Your task to perform on an android device: toggle improve location accuracy Image 0: 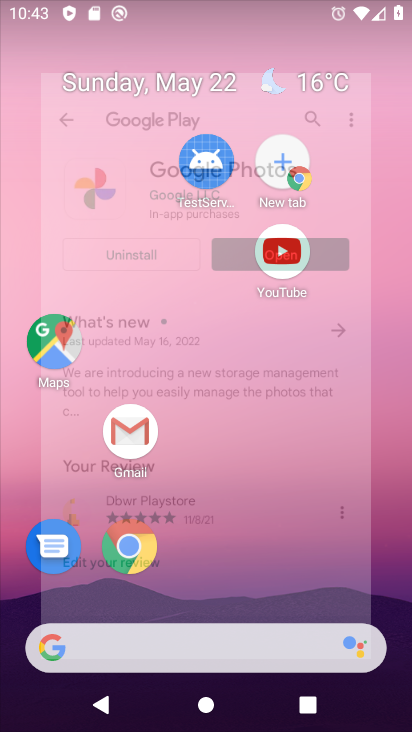
Step 0: drag from (273, 711) to (240, 148)
Your task to perform on an android device: toggle improve location accuracy Image 1: 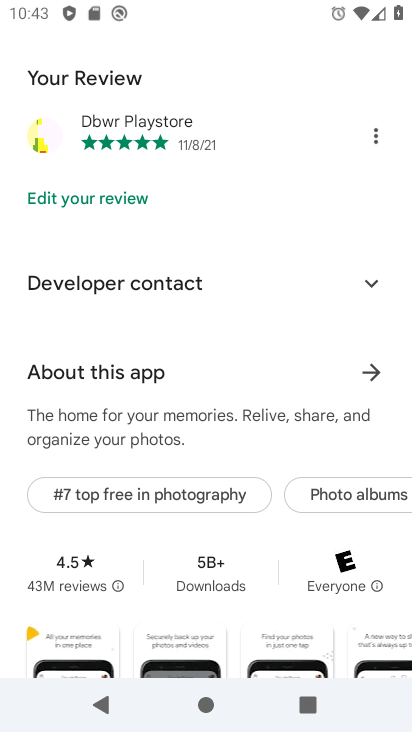
Step 1: press back button
Your task to perform on an android device: toggle improve location accuracy Image 2: 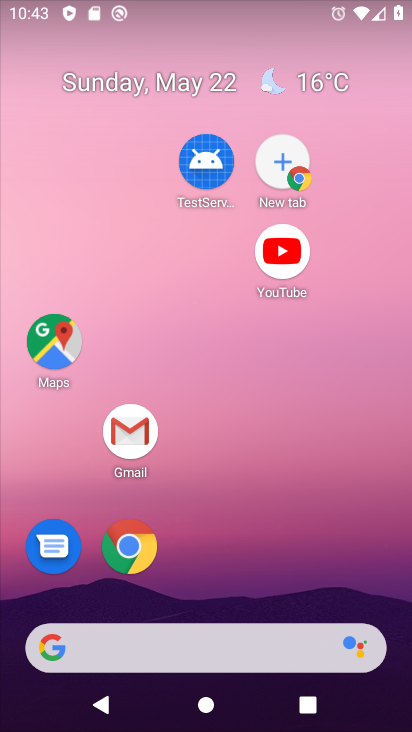
Step 2: drag from (300, 728) to (304, 239)
Your task to perform on an android device: toggle improve location accuracy Image 3: 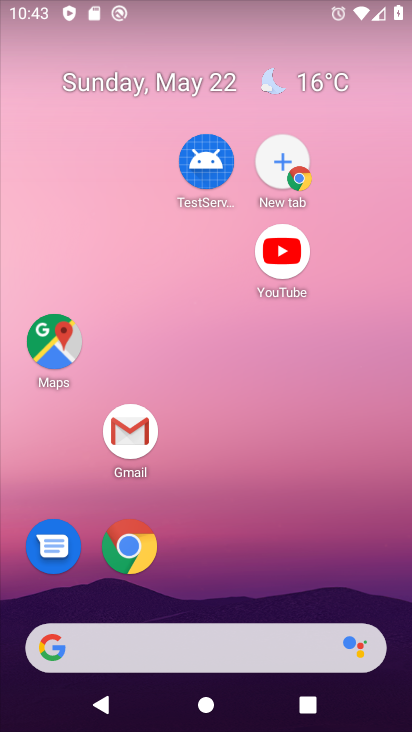
Step 3: drag from (253, 700) to (246, 159)
Your task to perform on an android device: toggle improve location accuracy Image 4: 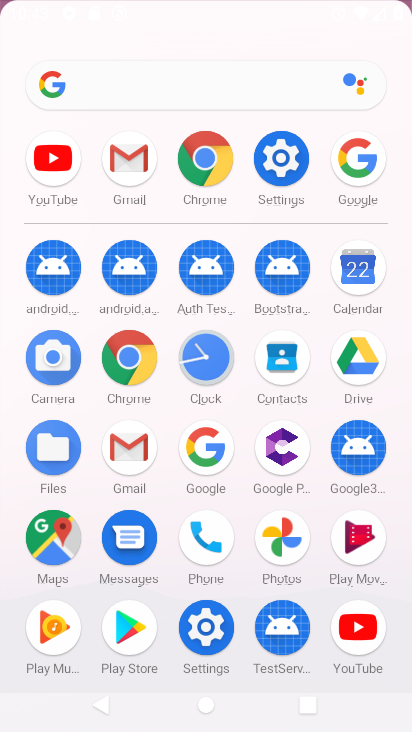
Step 4: drag from (175, 514) to (127, 209)
Your task to perform on an android device: toggle improve location accuracy Image 5: 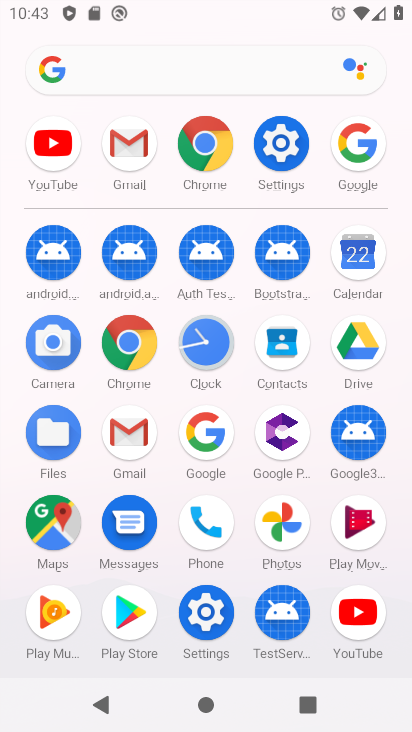
Step 5: click (278, 133)
Your task to perform on an android device: toggle improve location accuracy Image 6: 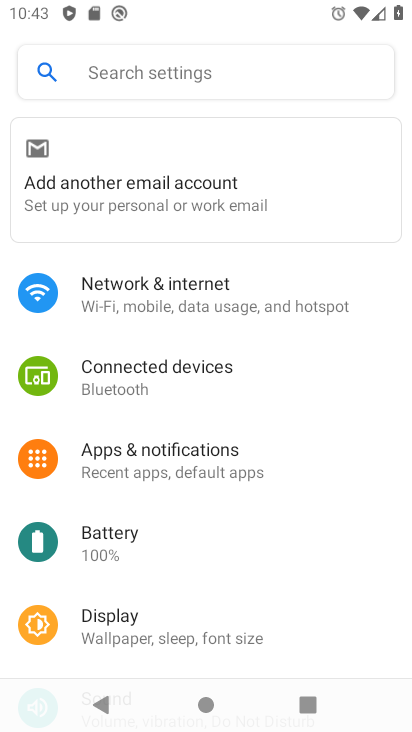
Step 6: drag from (176, 602) to (196, 176)
Your task to perform on an android device: toggle improve location accuracy Image 7: 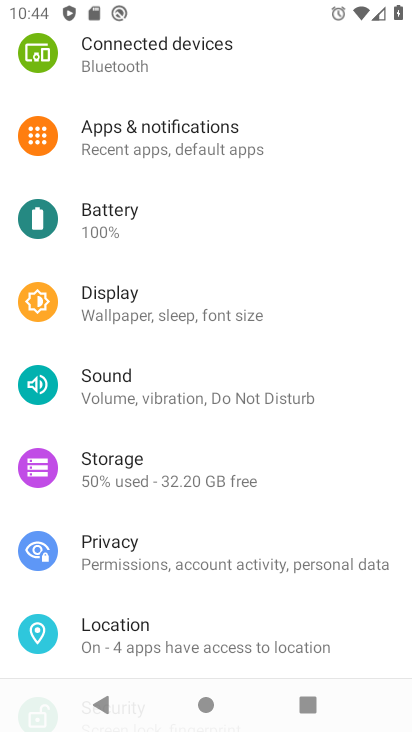
Step 7: drag from (179, 516) to (173, 227)
Your task to perform on an android device: toggle improve location accuracy Image 8: 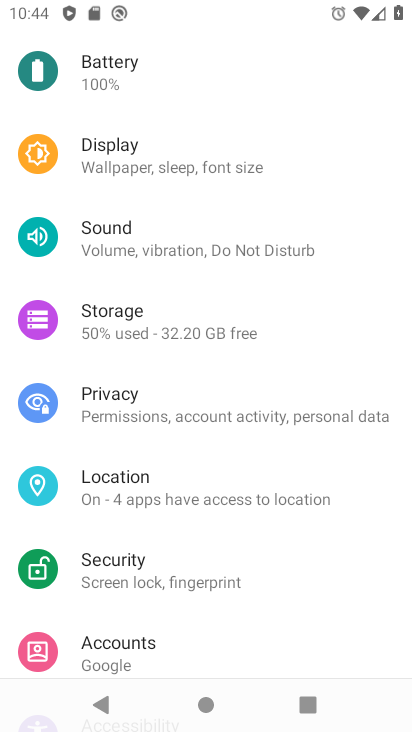
Step 8: drag from (200, 448) to (185, 174)
Your task to perform on an android device: toggle improve location accuracy Image 9: 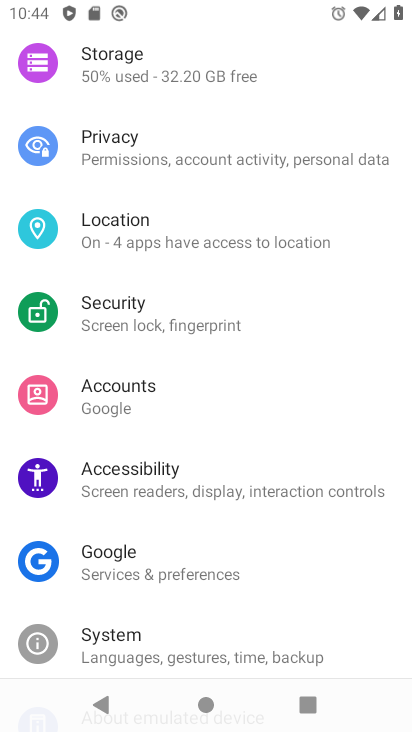
Step 9: click (156, 205)
Your task to perform on an android device: toggle improve location accuracy Image 10: 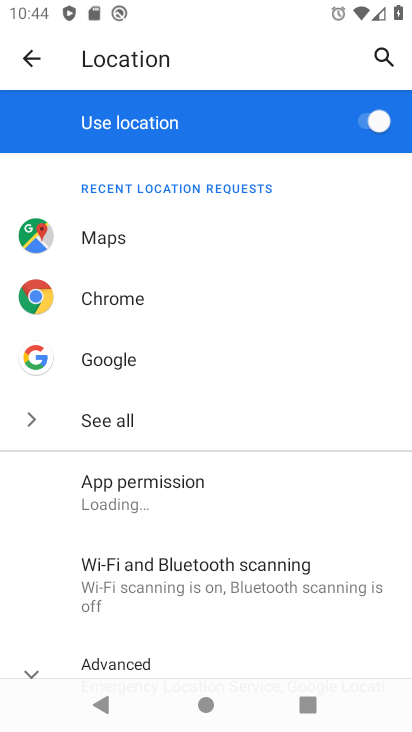
Step 10: drag from (178, 585) to (206, 258)
Your task to perform on an android device: toggle improve location accuracy Image 11: 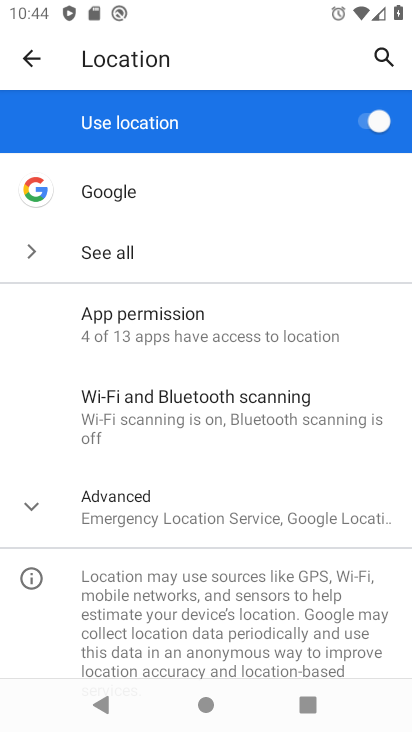
Step 11: click (141, 510)
Your task to perform on an android device: toggle improve location accuracy Image 12: 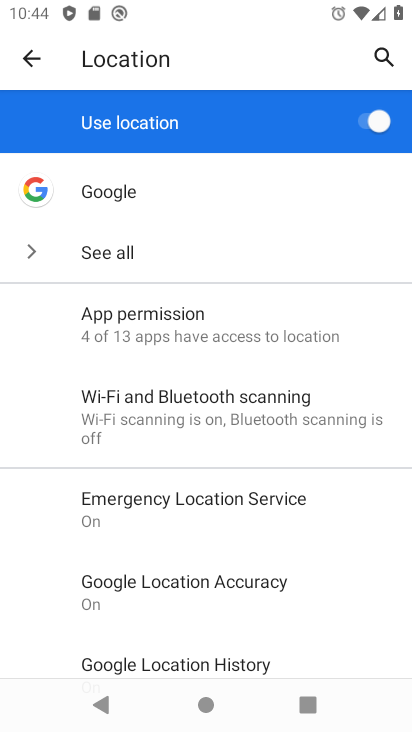
Step 12: click (175, 585)
Your task to perform on an android device: toggle improve location accuracy Image 13: 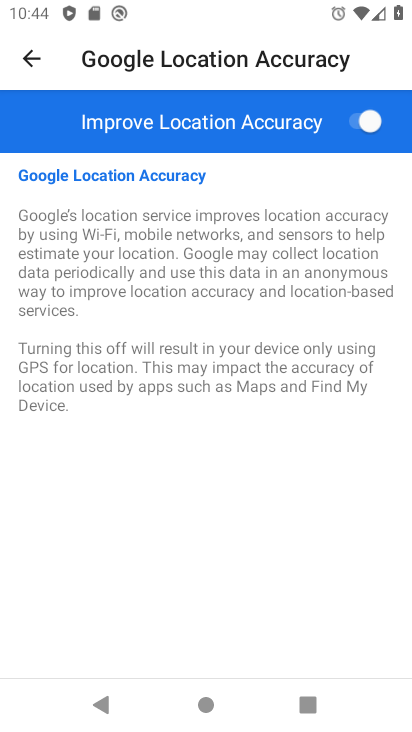
Step 13: click (375, 110)
Your task to perform on an android device: toggle improve location accuracy Image 14: 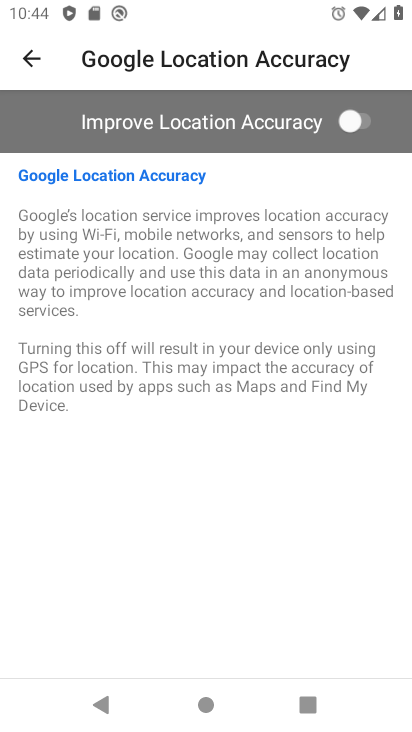
Step 14: task complete